Your task to perform on an android device: Do I have any events tomorrow? Image 0: 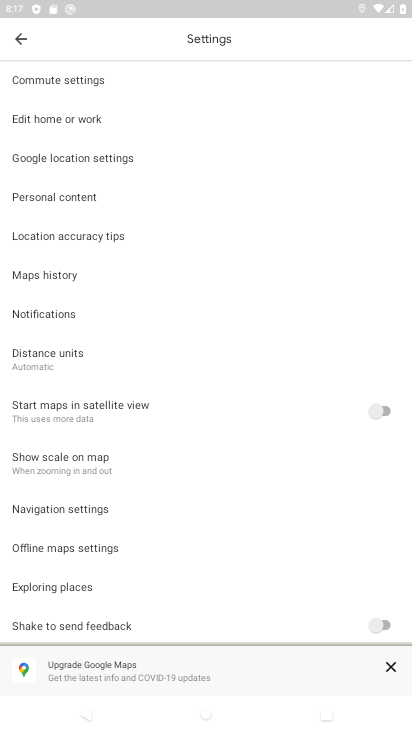
Step 0: press home button
Your task to perform on an android device: Do I have any events tomorrow? Image 1: 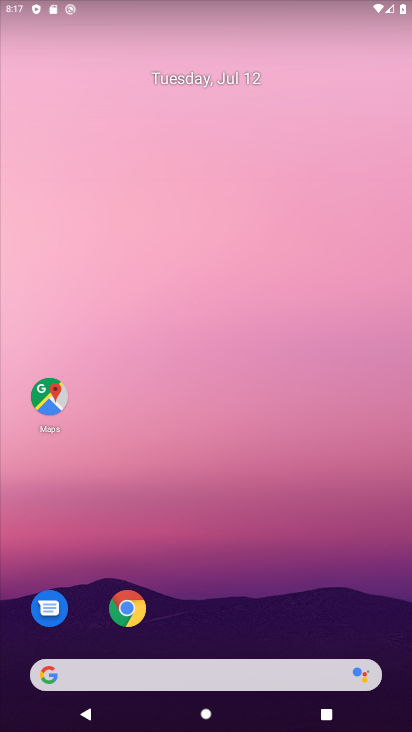
Step 1: drag from (265, 594) to (287, 0)
Your task to perform on an android device: Do I have any events tomorrow? Image 2: 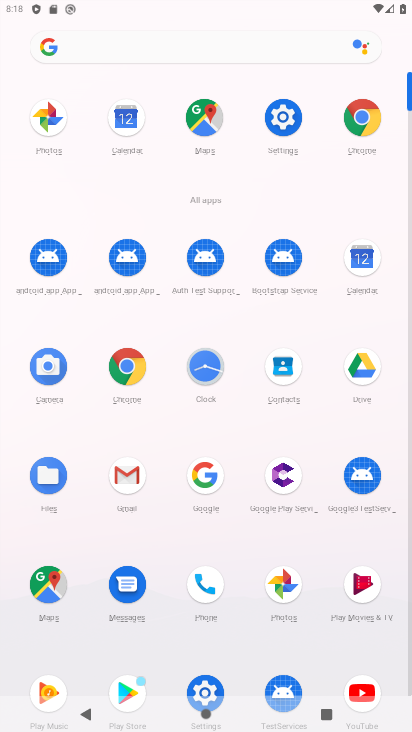
Step 2: click (127, 116)
Your task to perform on an android device: Do I have any events tomorrow? Image 3: 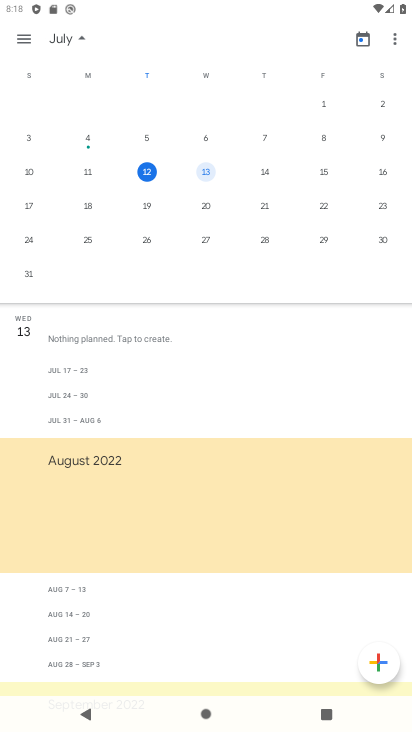
Step 3: click (209, 173)
Your task to perform on an android device: Do I have any events tomorrow? Image 4: 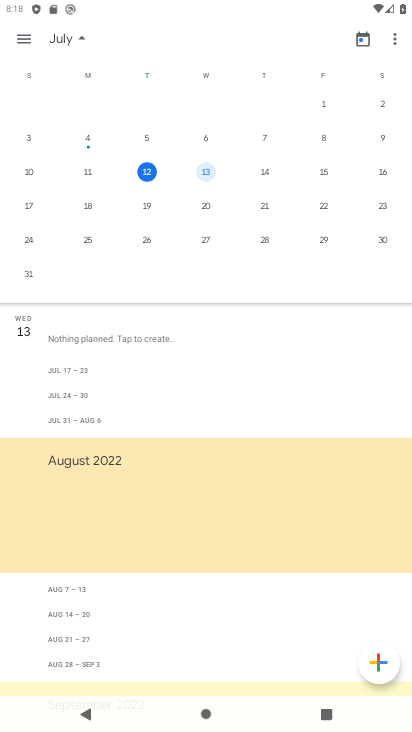
Step 4: task complete